Your task to perform on an android device: check storage Image 0: 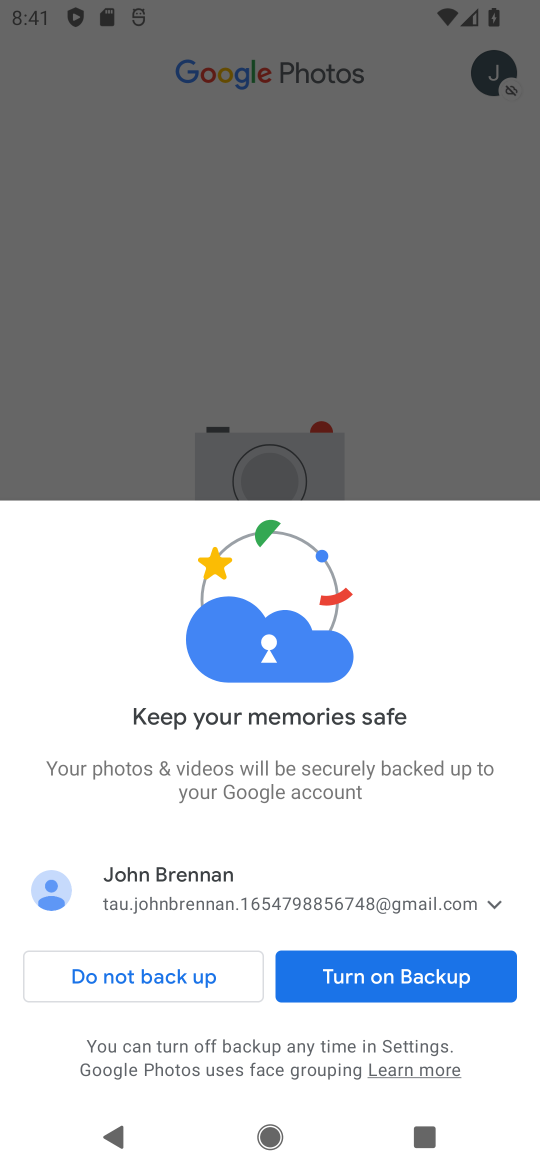
Step 0: press home button
Your task to perform on an android device: check storage Image 1: 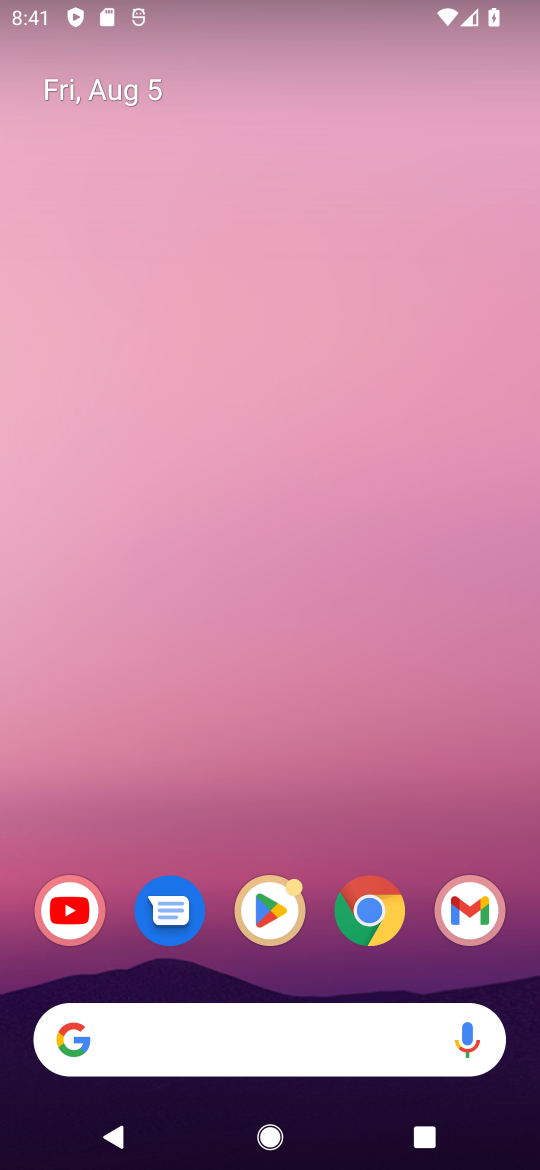
Step 1: drag from (303, 986) to (240, 182)
Your task to perform on an android device: check storage Image 2: 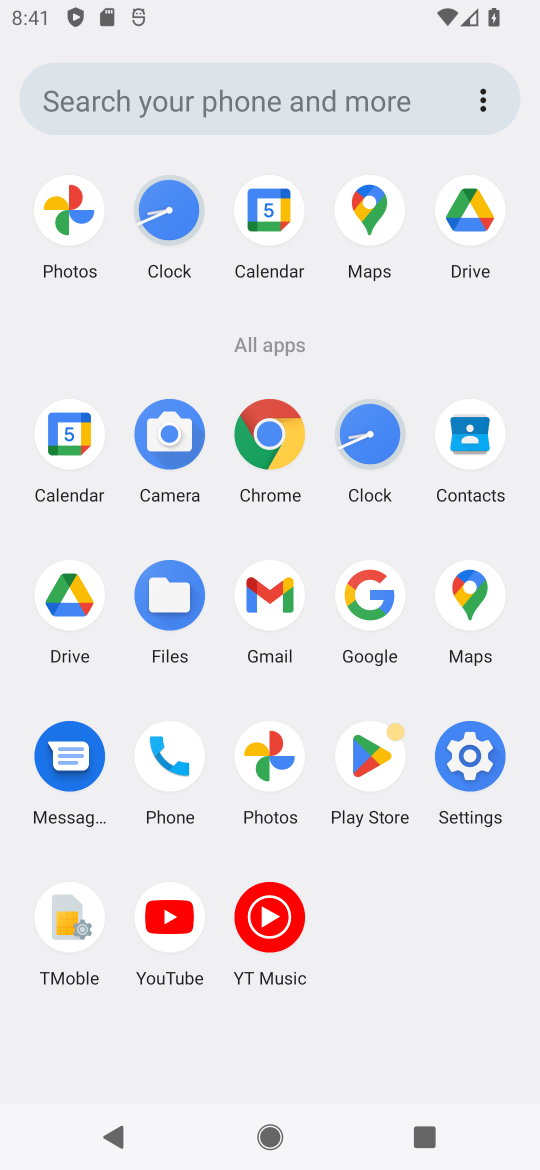
Step 2: click (436, 774)
Your task to perform on an android device: check storage Image 3: 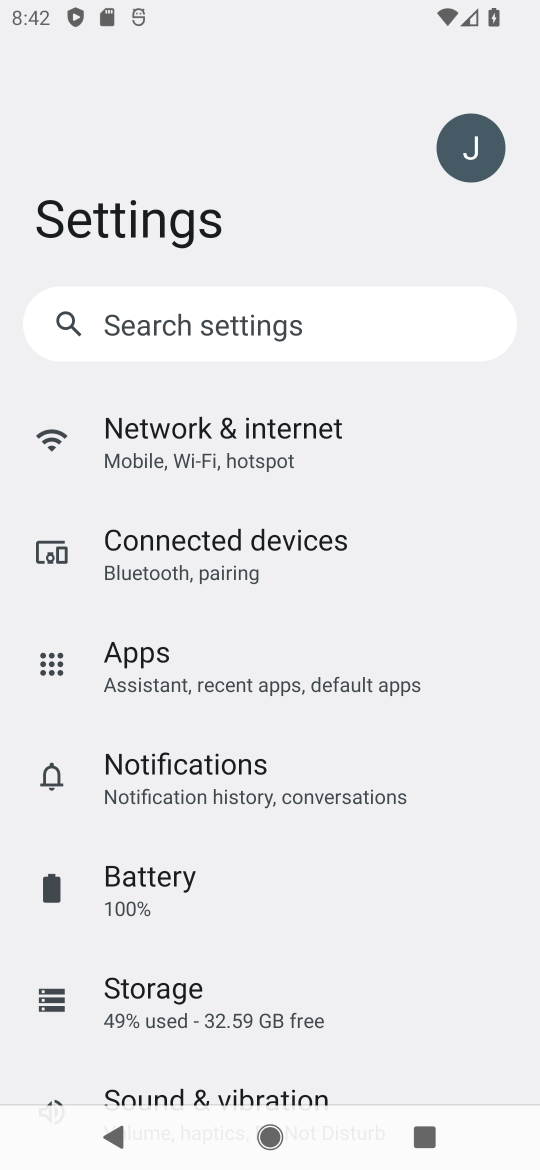
Step 3: click (151, 985)
Your task to perform on an android device: check storage Image 4: 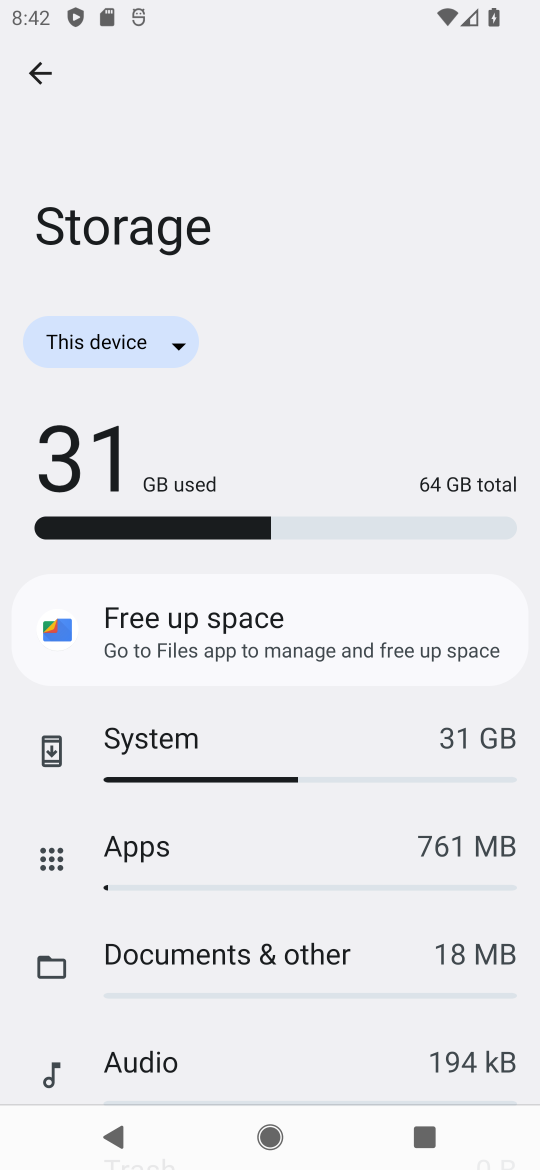
Step 4: task complete